Your task to perform on an android device: Open Google Chrome and open the bookmarks view Image 0: 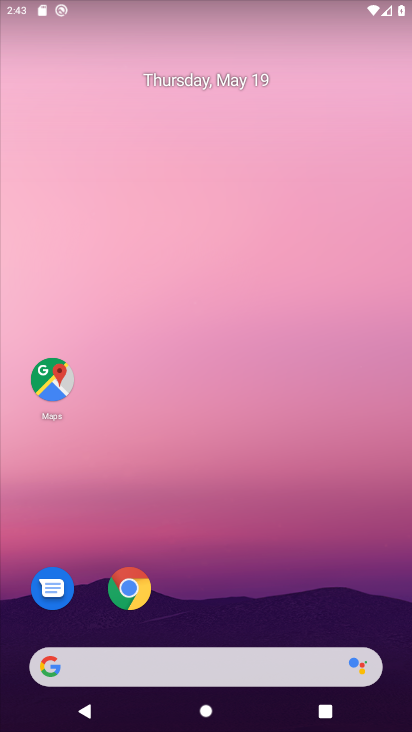
Step 0: click (132, 594)
Your task to perform on an android device: Open Google Chrome and open the bookmarks view Image 1: 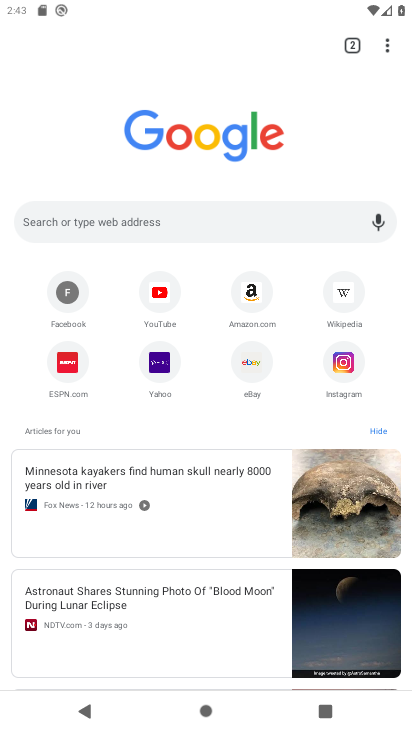
Step 1: click (337, 298)
Your task to perform on an android device: Open Google Chrome and open the bookmarks view Image 2: 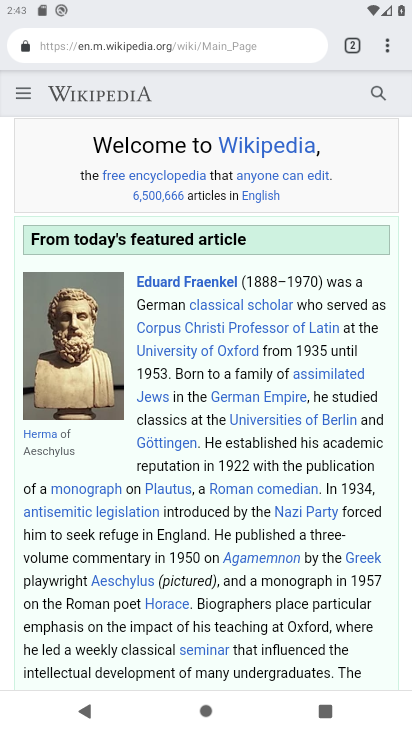
Step 2: task complete